Your task to perform on an android device: create a new album in the google photos Image 0: 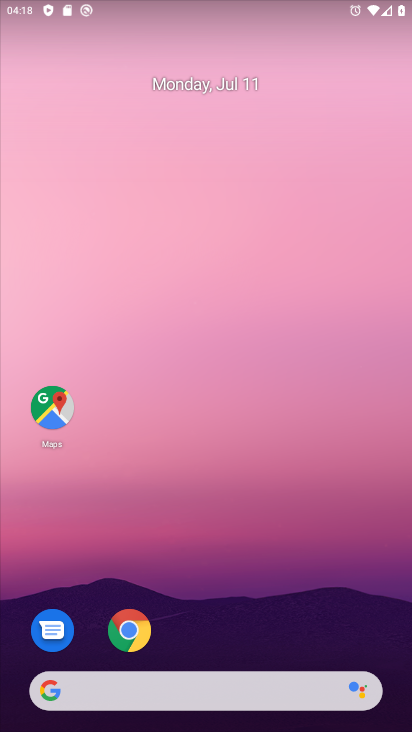
Step 0: press home button
Your task to perform on an android device: create a new album in the google photos Image 1: 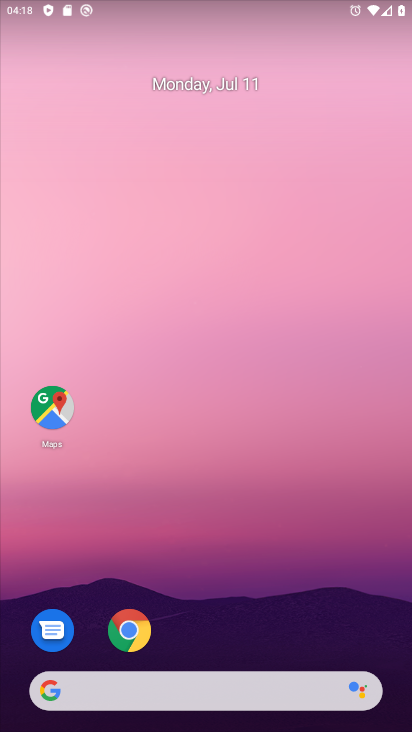
Step 1: drag from (222, 654) to (229, 59)
Your task to perform on an android device: create a new album in the google photos Image 2: 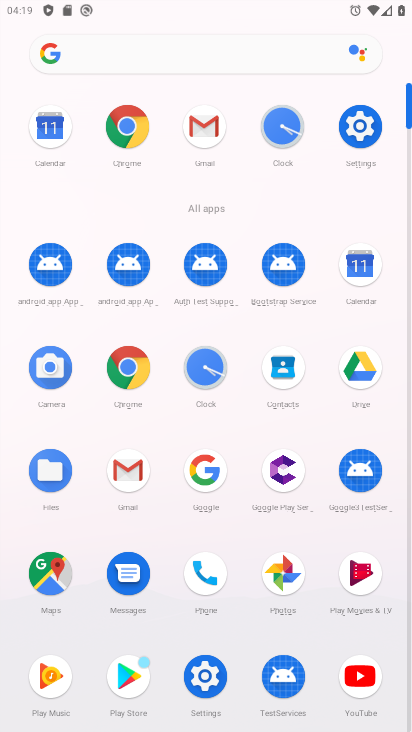
Step 2: click (279, 567)
Your task to perform on an android device: create a new album in the google photos Image 3: 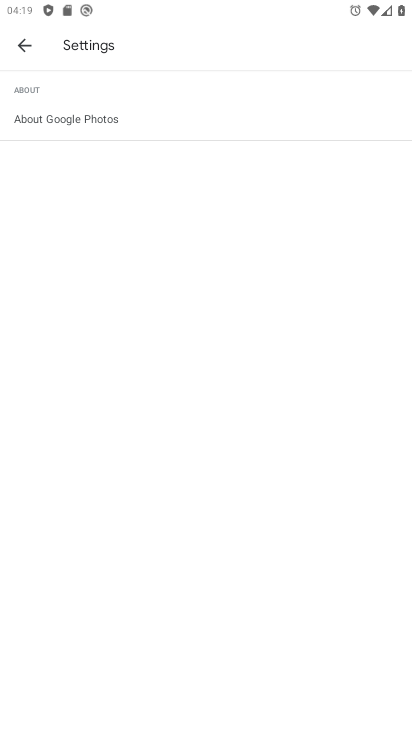
Step 3: press home button
Your task to perform on an android device: create a new album in the google photos Image 4: 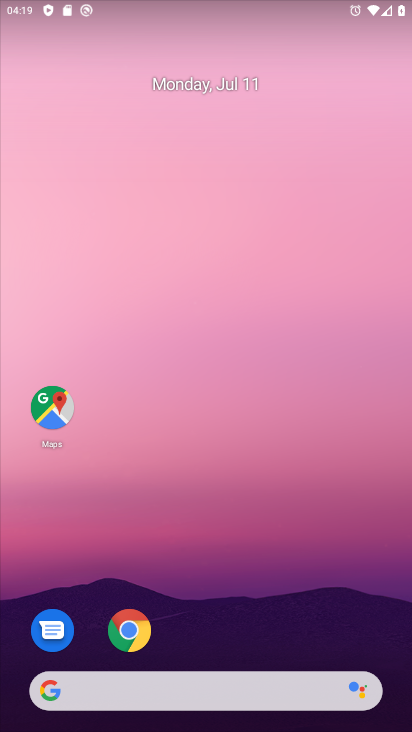
Step 4: drag from (216, 655) to (251, 48)
Your task to perform on an android device: create a new album in the google photos Image 5: 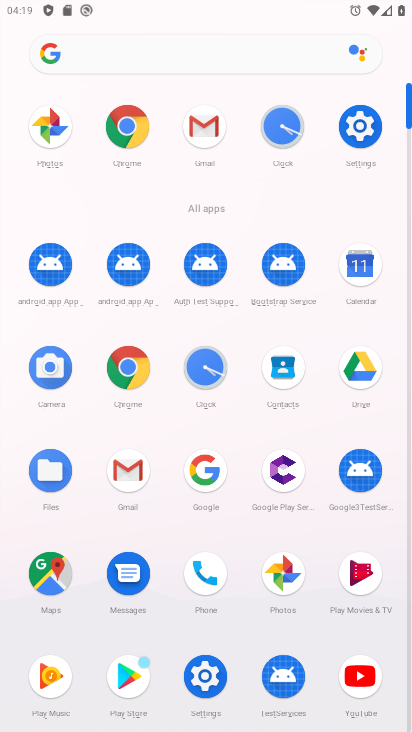
Step 5: click (282, 569)
Your task to perform on an android device: create a new album in the google photos Image 6: 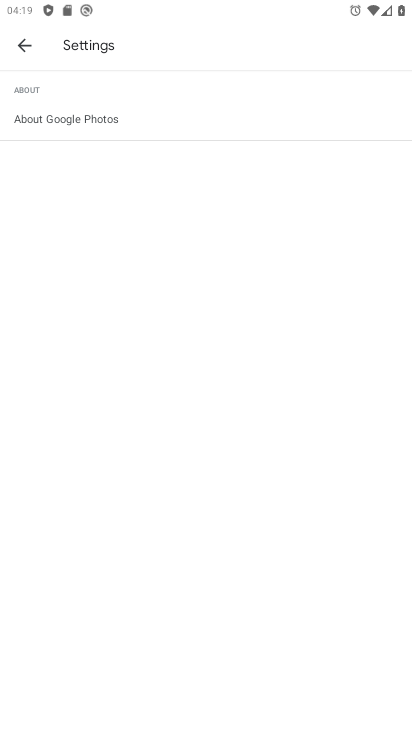
Step 6: click (26, 45)
Your task to perform on an android device: create a new album in the google photos Image 7: 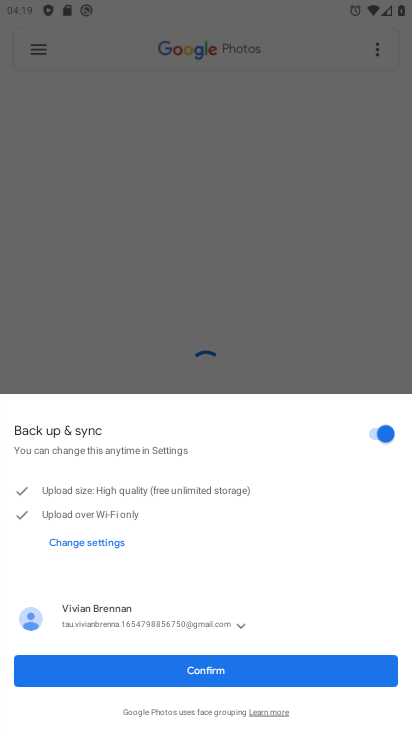
Step 7: click (378, 46)
Your task to perform on an android device: create a new album in the google photos Image 8: 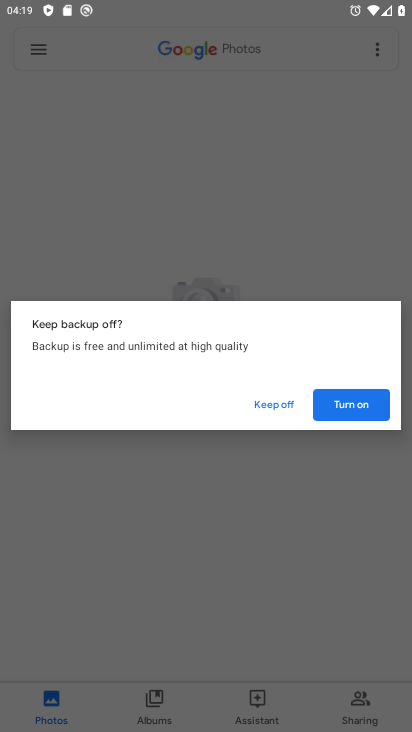
Step 8: click (269, 398)
Your task to perform on an android device: create a new album in the google photos Image 9: 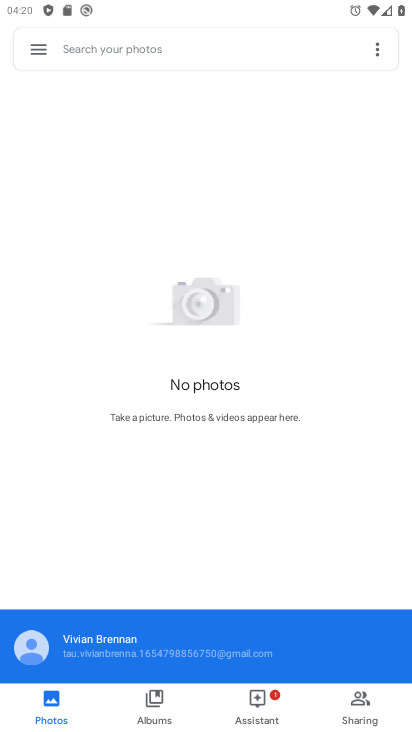
Step 9: click (149, 700)
Your task to perform on an android device: create a new album in the google photos Image 10: 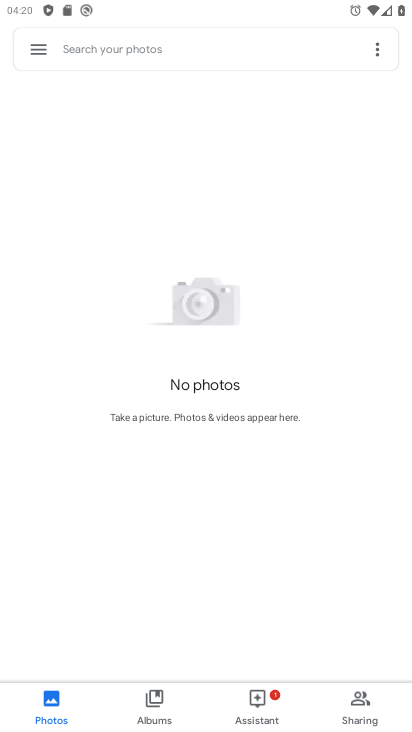
Step 10: click (156, 698)
Your task to perform on an android device: create a new album in the google photos Image 11: 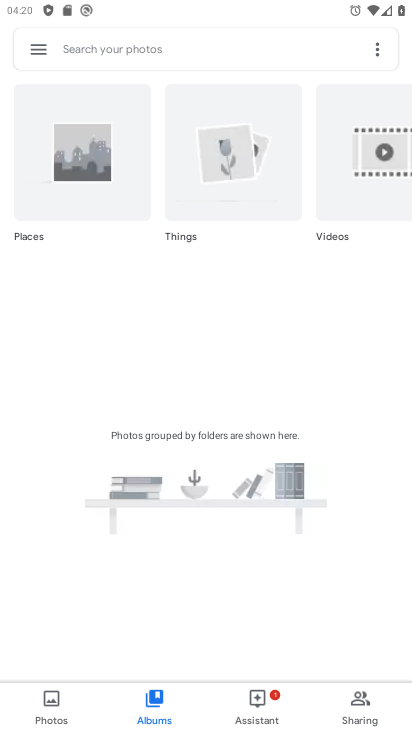
Step 11: click (380, 50)
Your task to perform on an android device: create a new album in the google photos Image 12: 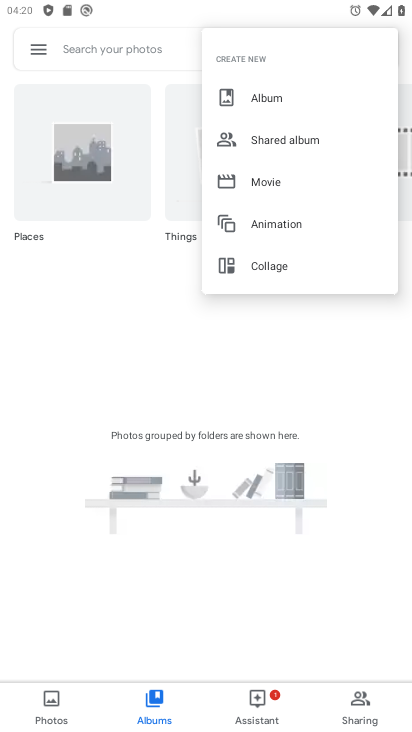
Step 12: click (276, 98)
Your task to perform on an android device: create a new album in the google photos Image 13: 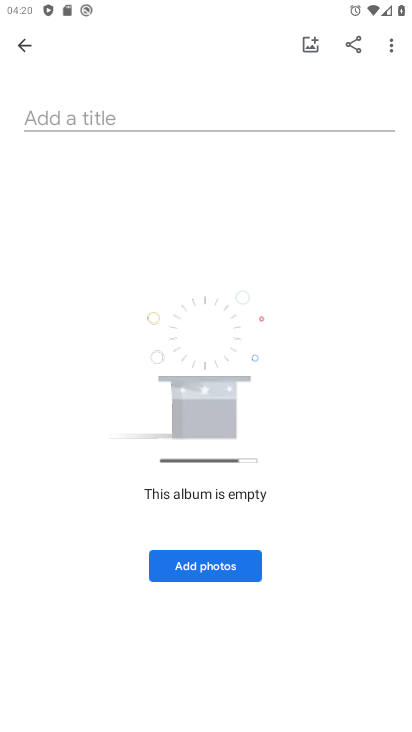
Step 13: click (201, 564)
Your task to perform on an android device: create a new album in the google photos Image 14: 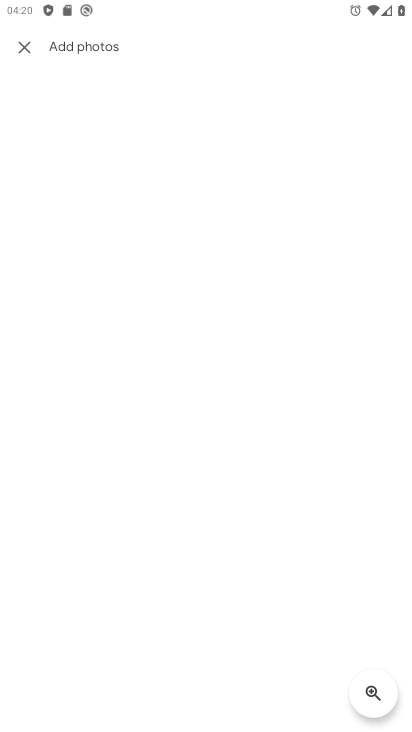
Step 14: task complete